Your task to perform on an android device: check out phone information Image 0: 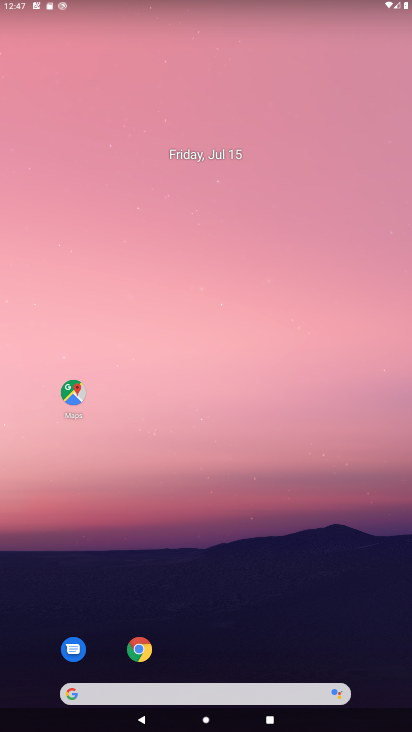
Step 0: drag from (252, 503) to (258, 240)
Your task to perform on an android device: check out phone information Image 1: 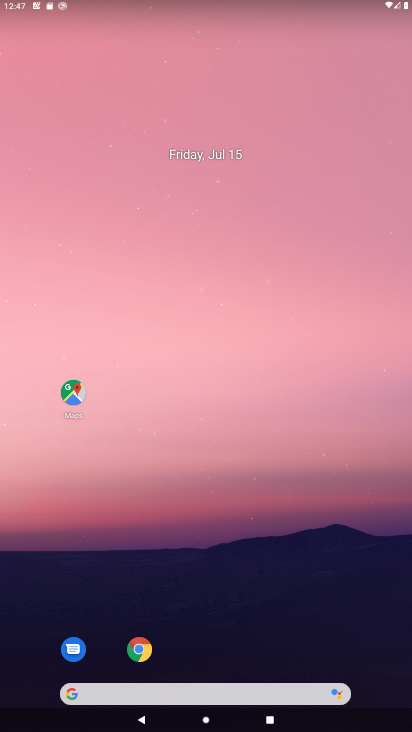
Step 1: drag from (233, 671) to (246, 309)
Your task to perform on an android device: check out phone information Image 2: 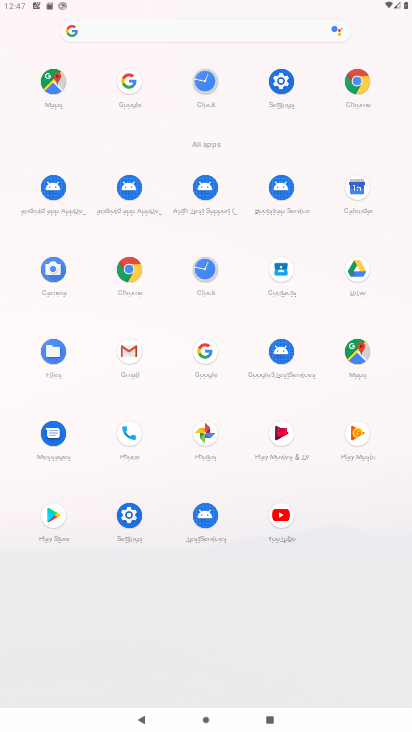
Step 2: click (287, 73)
Your task to perform on an android device: check out phone information Image 3: 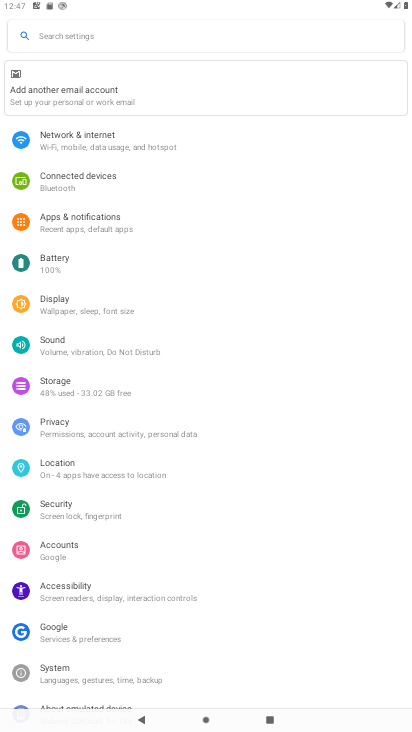
Step 3: drag from (84, 698) to (107, 302)
Your task to perform on an android device: check out phone information Image 4: 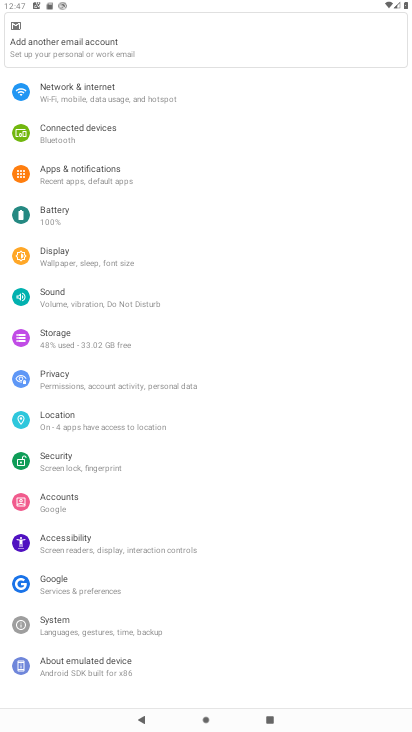
Step 4: click (69, 656)
Your task to perform on an android device: check out phone information Image 5: 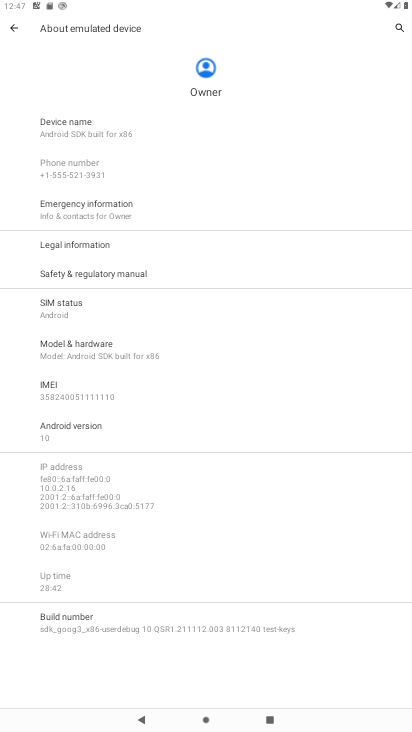
Step 5: task complete